Your task to perform on an android device: Go to Google Image 0: 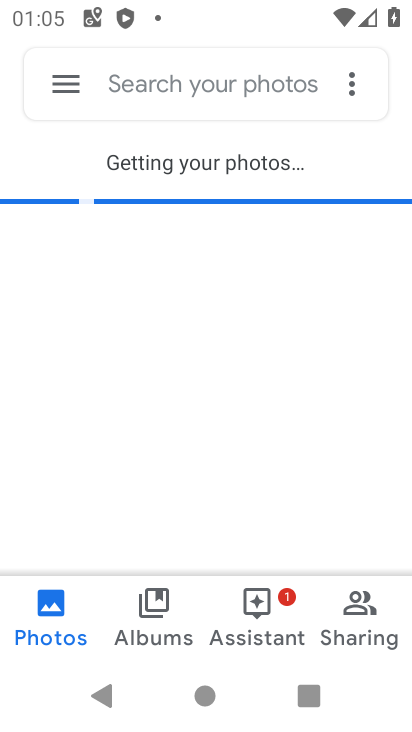
Step 0: press home button
Your task to perform on an android device: Go to Google Image 1: 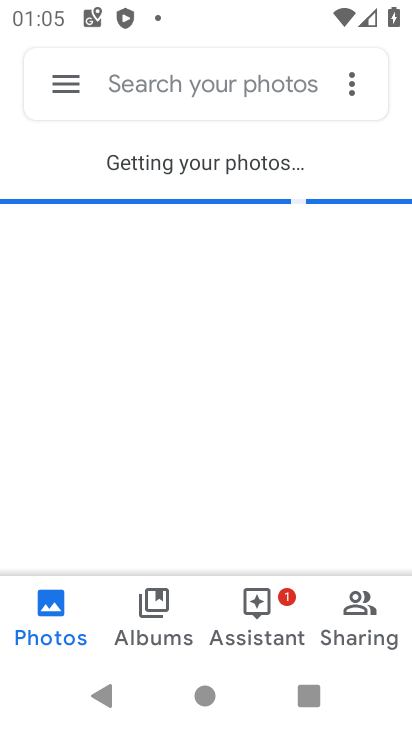
Step 1: press home button
Your task to perform on an android device: Go to Google Image 2: 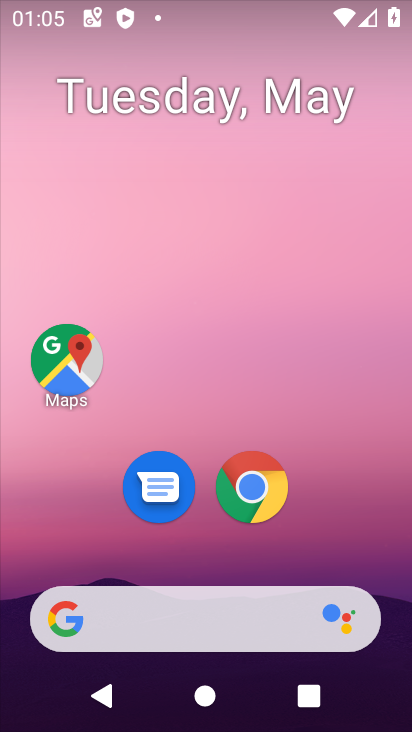
Step 2: drag from (135, 547) to (168, 44)
Your task to perform on an android device: Go to Google Image 3: 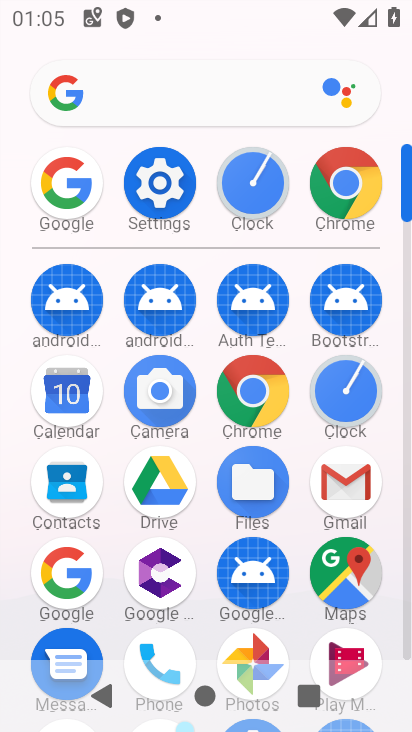
Step 3: click (76, 194)
Your task to perform on an android device: Go to Google Image 4: 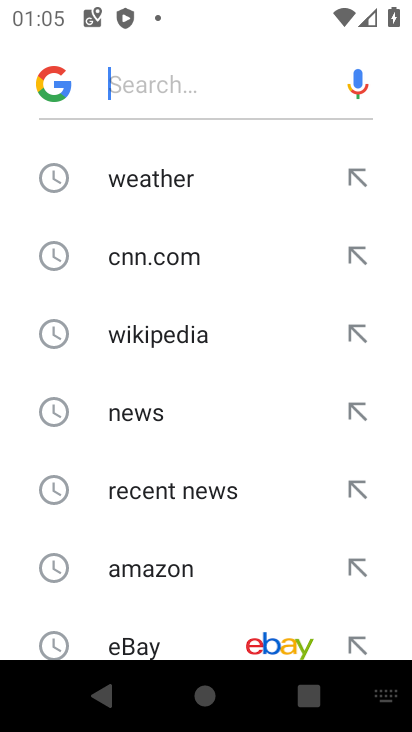
Step 4: task complete